Your task to perform on an android device: Go to notification settings Image 0: 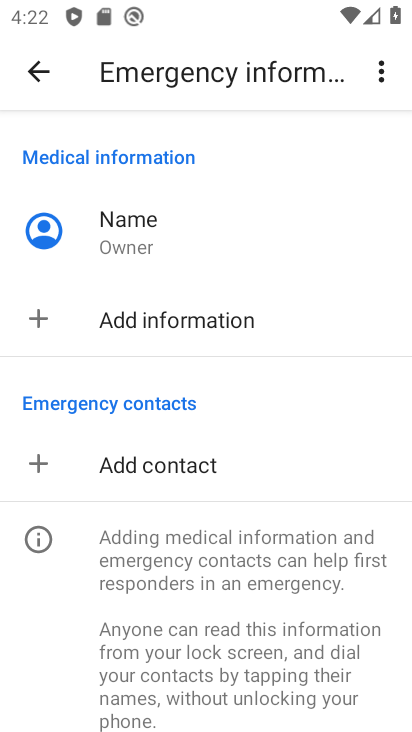
Step 0: press home button
Your task to perform on an android device: Go to notification settings Image 1: 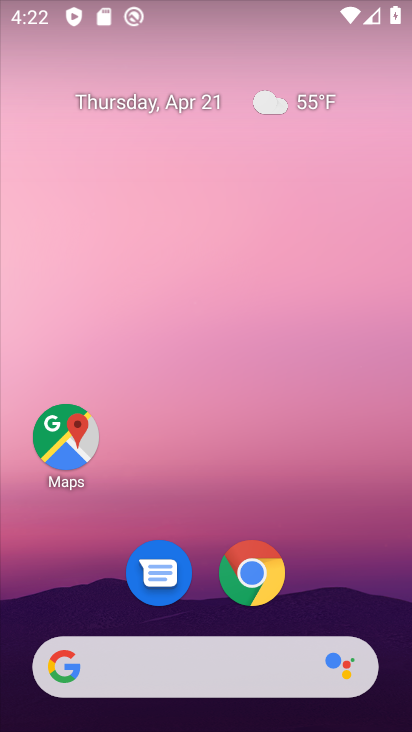
Step 1: drag from (331, 606) to (212, 76)
Your task to perform on an android device: Go to notification settings Image 2: 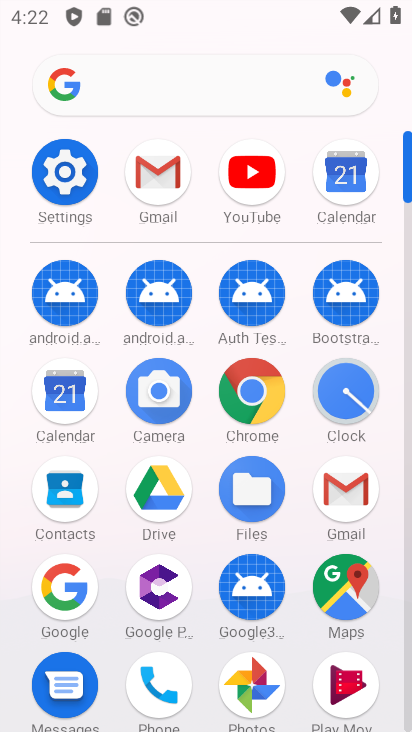
Step 2: click (408, 712)
Your task to perform on an android device: Go to notification settings Image 3: 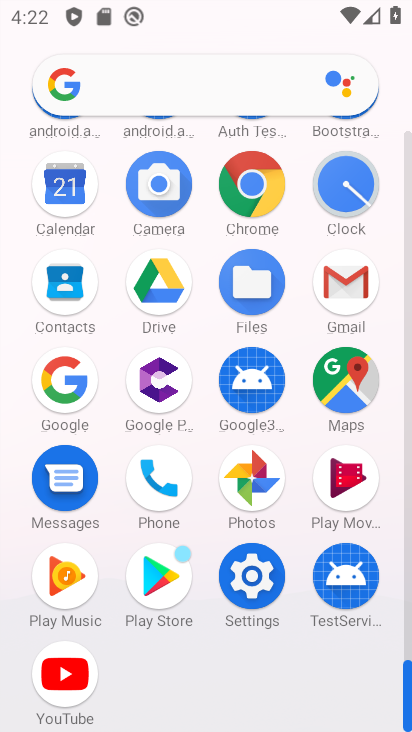
Step 3: click (249, 572)
Your task to perform on an android device: Go to notification settings Image 4: 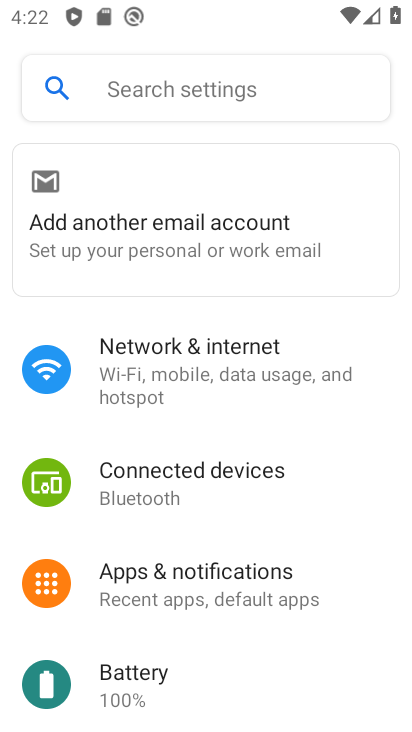
Step 4: click (161, 581)
Your task to perform on an android device: Go to notification settings Image 5: 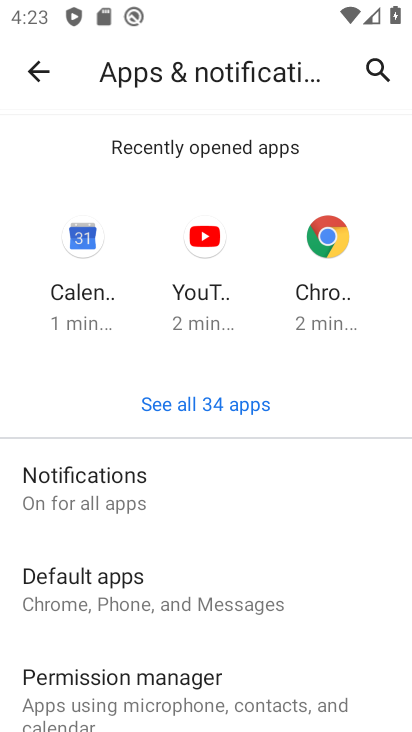
Step 5: click (92, 490)
Your task to perform on an android device: Go to notification settings Image 6: 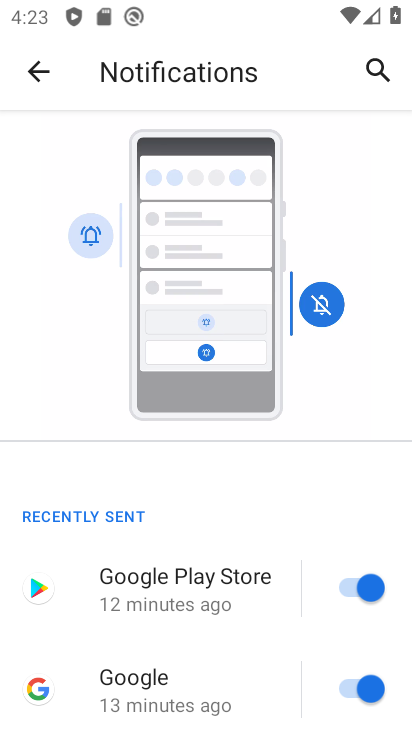
Step 6: drag from (293, 621) to (230, 261)
Your task to perform on an android device: Go to notification settings Image 7: 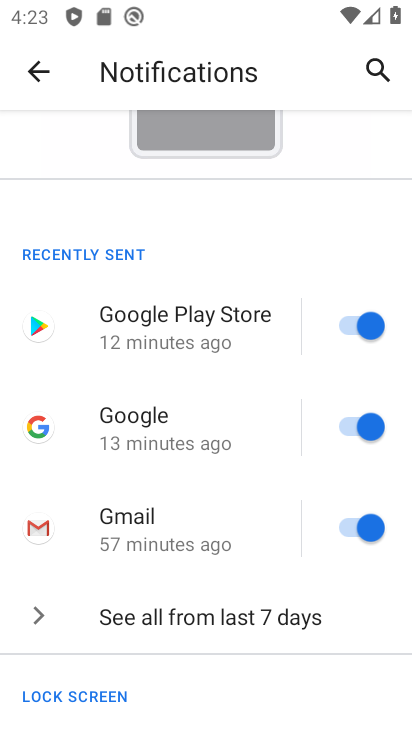
Step 7: drag from (292, 537) to (262, 207)
Your task to perform on an android device: Go to notification settings Image 8: 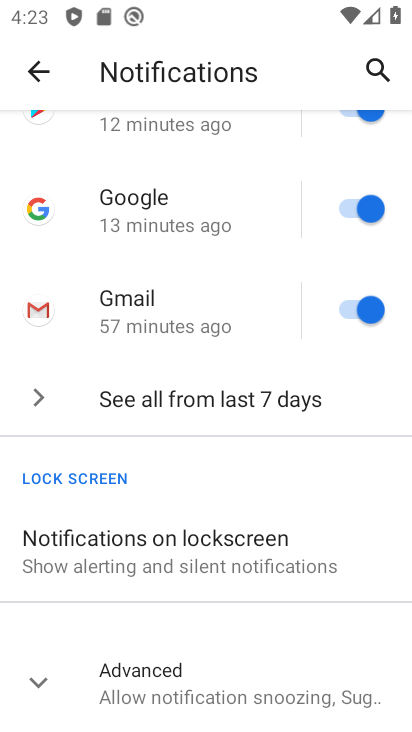
Step 8: drag from (289, 545) to (287, 302)
Your task to perform on an android device: Go to notification settings Image 9: 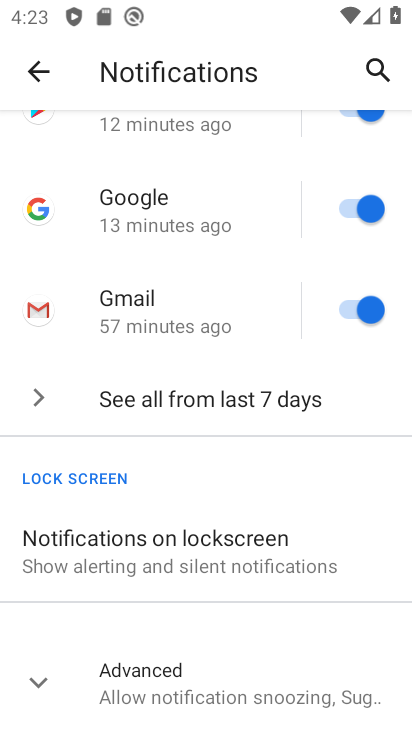
Step 9: click (39, 685)
Your task to perform on an android device: Go to notification settings Image 10: 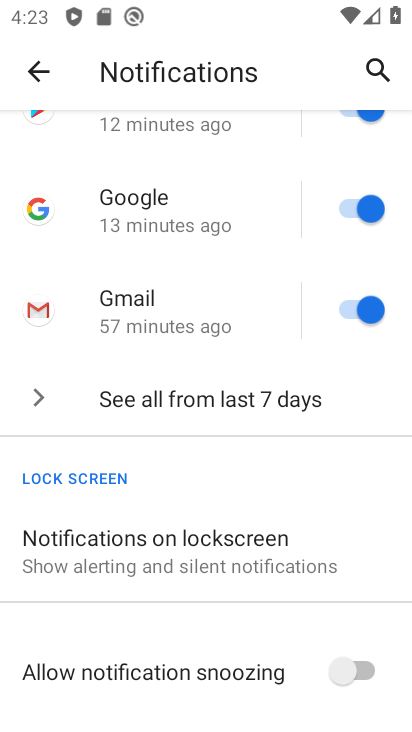
Step 10: task complete